Your task to perform on an android device: turn off airplane mode Image 0: 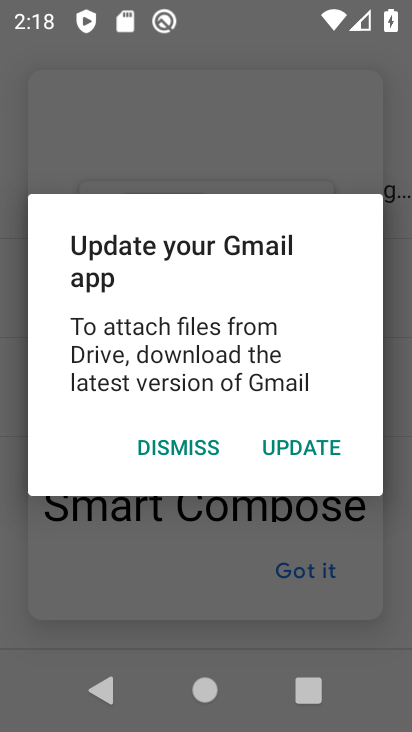
Step 0: press home button
Your task to perform on an android device: turn off airplane mode Image 1: 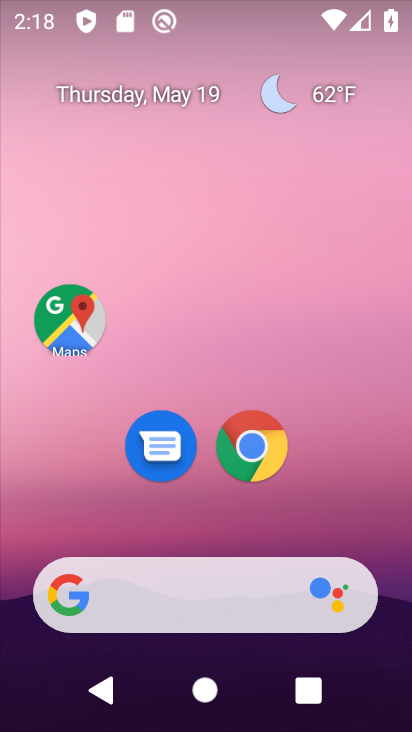
Step 1: click (365, 193)
Your task to perform on an android device: turn off airplane mode Image 2: 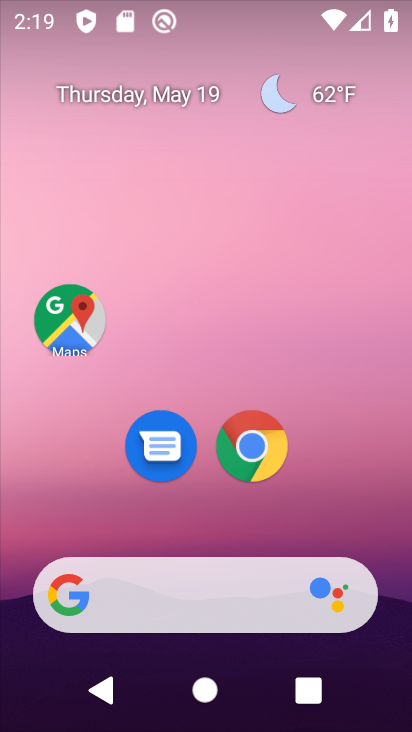
Step 2: drag from (393, 595) to (364, 353)
Your task to perform on an android device: turn off airplane mode Image 3: 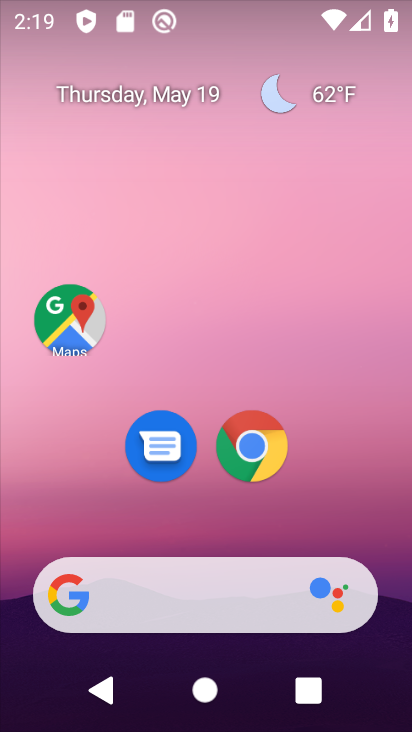
Step 3: drag from (364, 513) to (317, 235)
Your task to perform on an android device: turn off airplane mode Image 4: 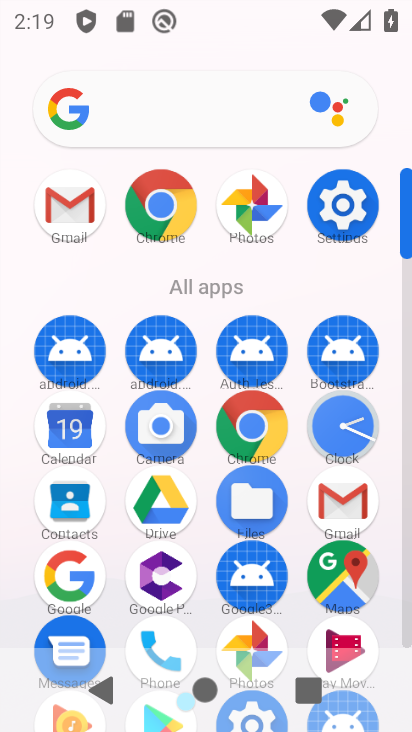
Step 4: click (357, 222)
Your task to perform on an android device: turn off airplane mode Image 5: 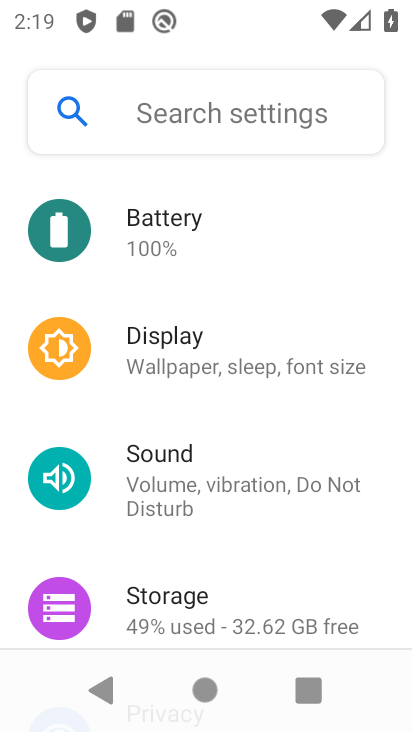
Step 5: drag from (251, 592) to (282, 264)
Your task to perform on an android device: turn off airplane mode Image 6: 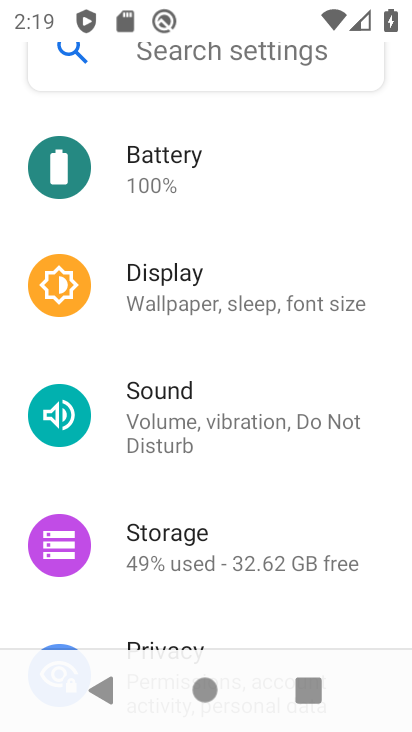
Step 6: drag from (271, 210) to (303, 532)
Your task to perform on an android device: turn off airplane mode Image 7: 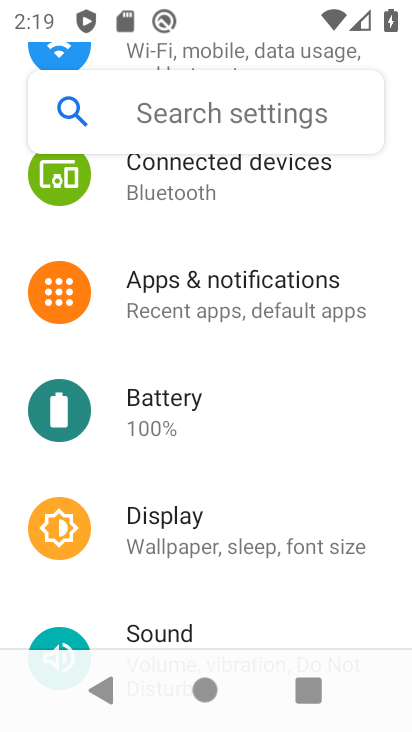
Step 7: drag from (293, 197) to (349, 630)
Your task to perform on an android device: turn off airplane mode Image 8: 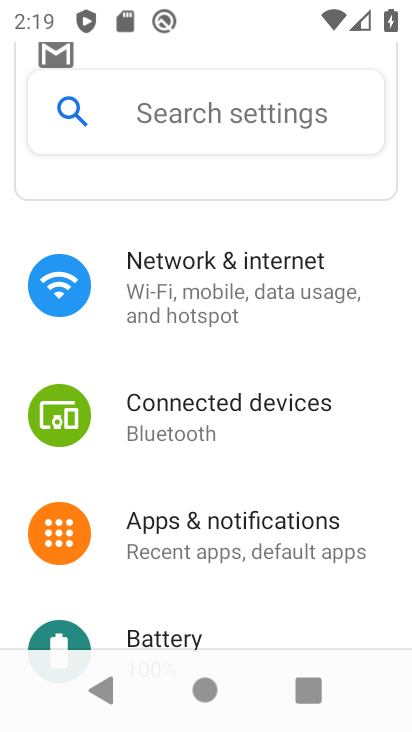
Step 8: drag from (300, 545) to (299, 654)
Your task to perform on an android device: turn off airplane mode Image 9: 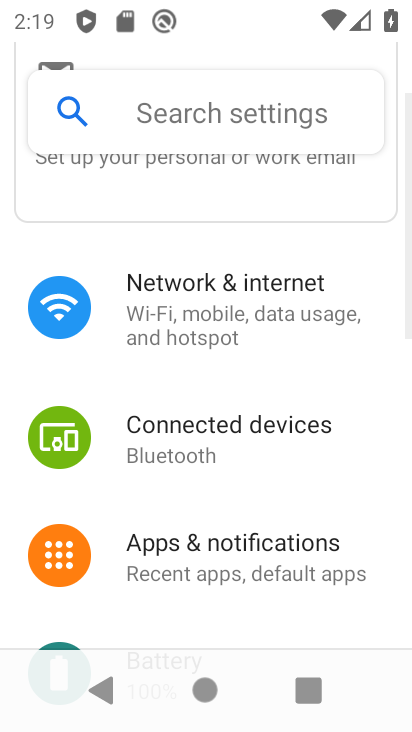
Step 9: click (164, 296)
Your task to perform on an android device: turn off airplane mode Image 10: 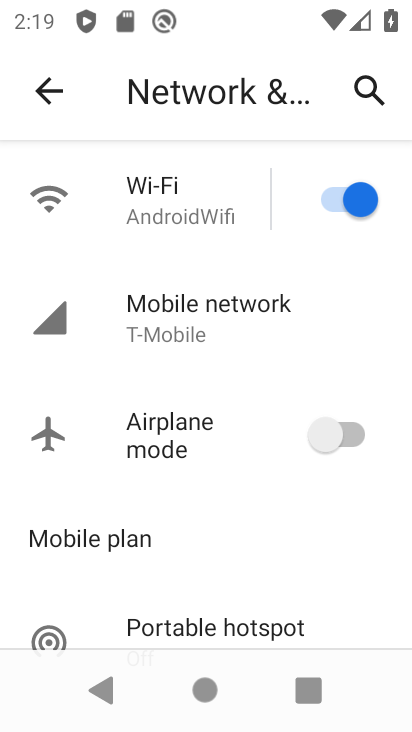
Step 10: task complete